Your task to perform on an android device: turn on sleep mode Image 0: 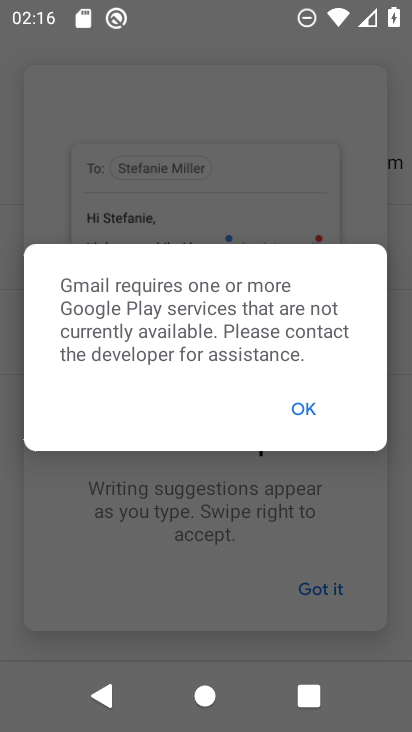
Step 0: press home button
Your task to perform on an android device: turn on sleep mode Image 1: 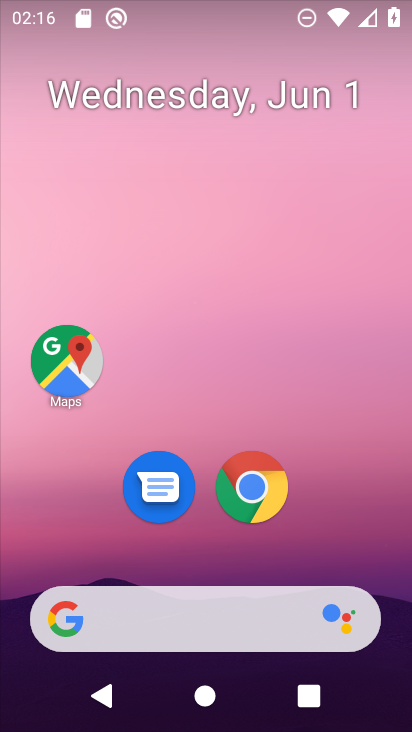
Step 1: drag from (274, 499) to (270, 53)
Your task to perform on an android device: turn on sleep mode Image 2: 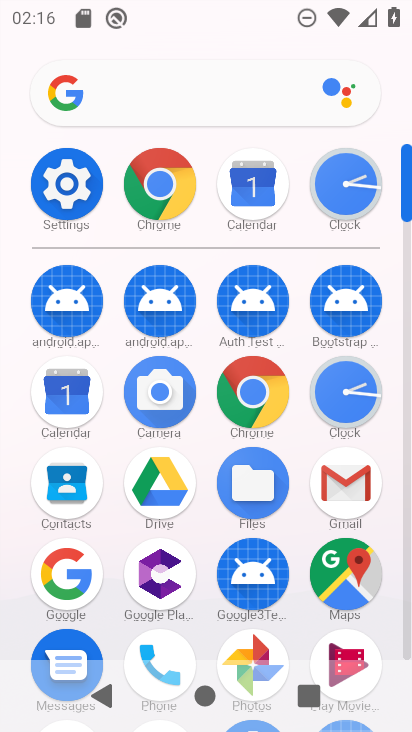
Step 2: click (94, 174)
Your task to perform on an android device: turn on sleep mode Image 3: 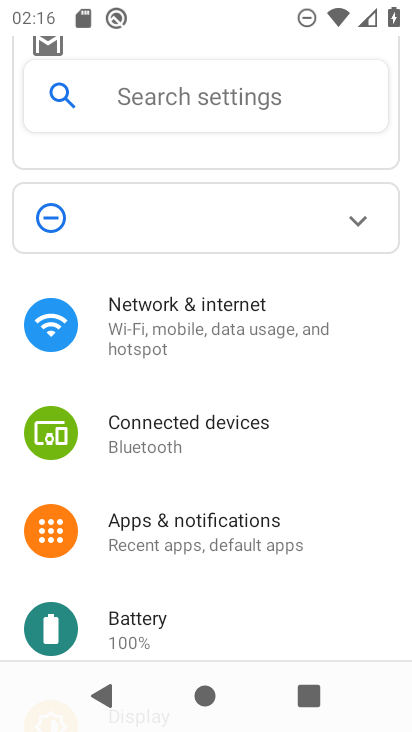
Step 3: task complete